Your task to perform on an android device: Go to Yahoo.com Image 0: 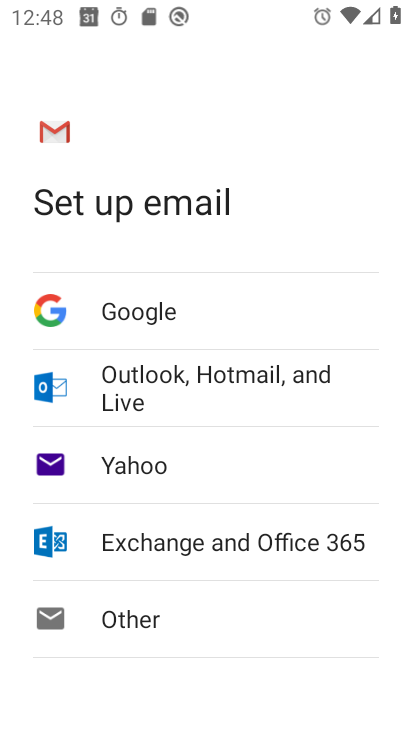
Step 0: press back button
Your task to perform on an android device: Go to Yahoo.com Image 1: 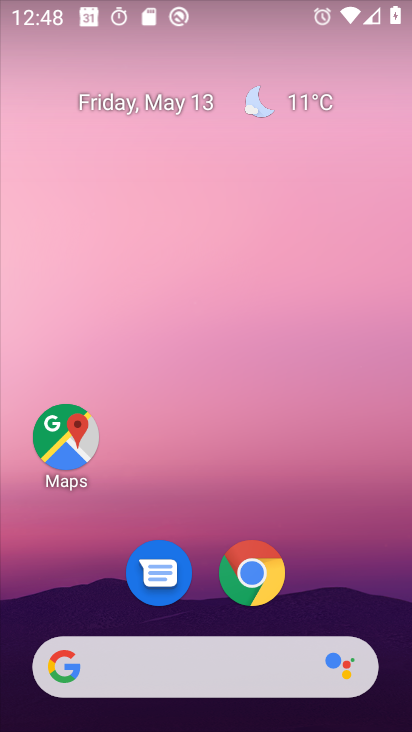
Step 1: click (254, 567)
Your task to perform on an android device: Go to Yahoo.com Image 2: 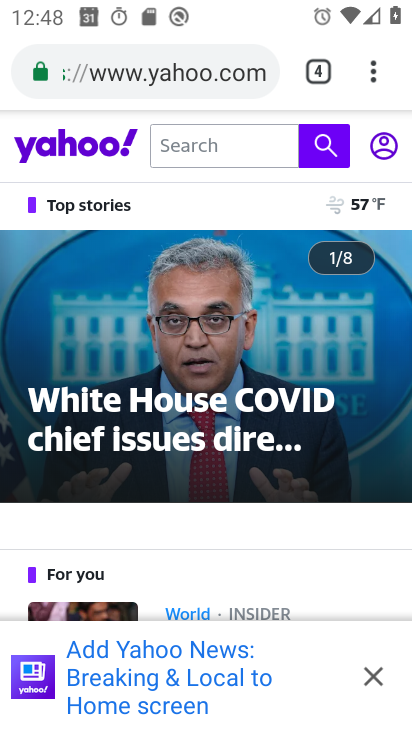
Step 2: click (368, 679)
Your task to perform on an android device: Go to Yahoo.com Image 3: 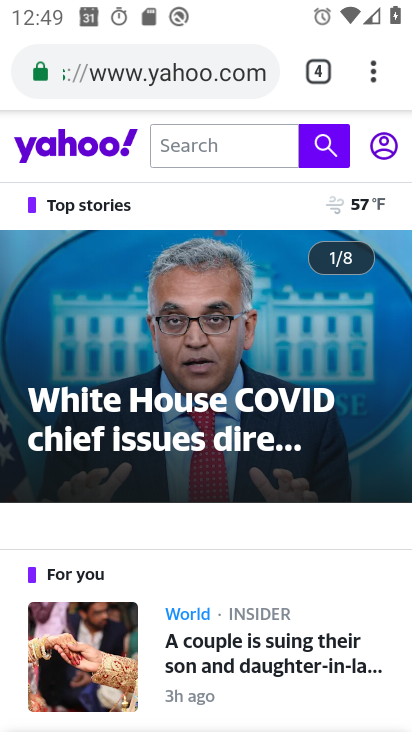
Step 3: task complete